Your task to perform on an android device: Open location settings Image 0: 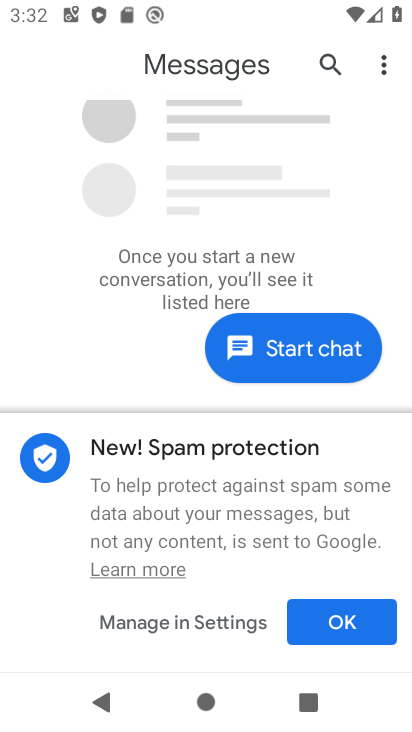
Step 0: press home button
Your task to perform on an android device: Open location settings Image 1: 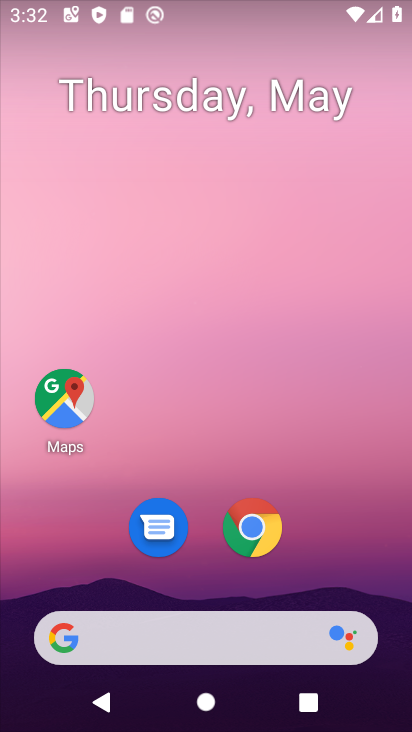
Step 1: drag from (381, 600) to (366, 176)
Your task to perform on an android device: Open location settings Image 2: 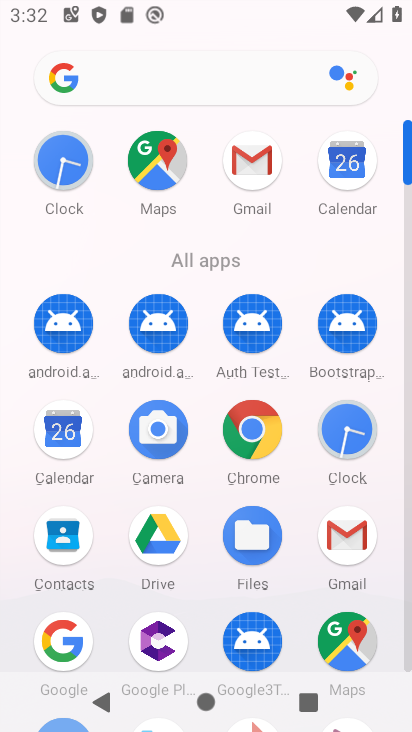
Step 2: click (406, 655)
Your task to perform on an android device: Open location settings Image 3: 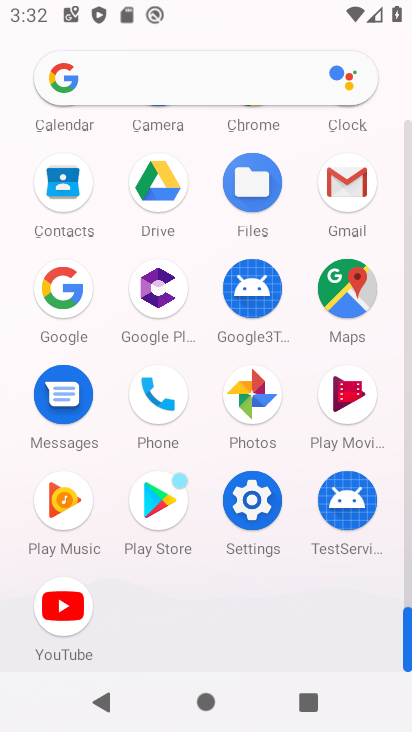
Step 3: click (255, 496)
Your task to perform on an android device: Open location settings Image 4: 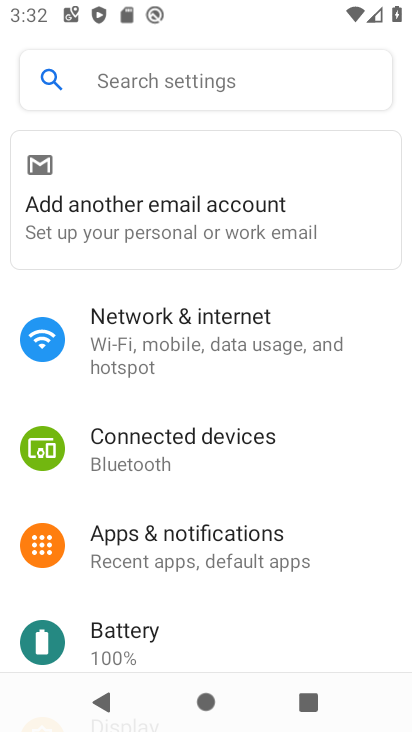
Step 4: drag from (356, 622) to (301, 119)
Your task to perform on an android device: Open location settings Image 5: 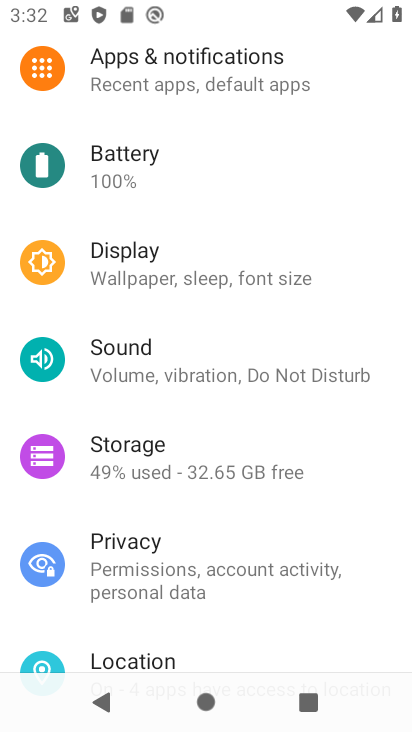
Step 5: drag from (356, 587) to (331, 282)
Your task to perform on an android device: Open location settings Image 6: 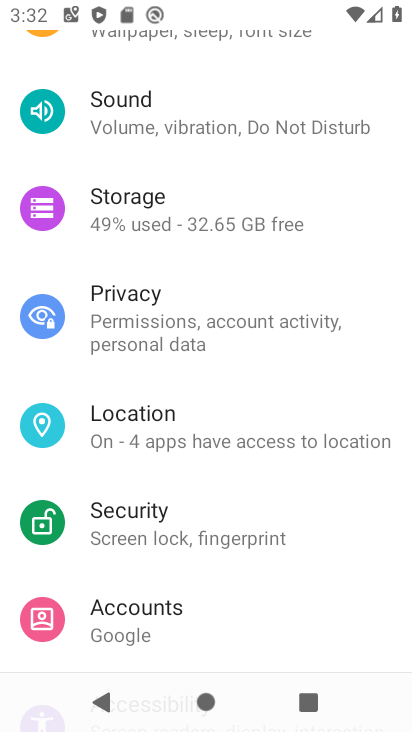
Step 6: click (119, 411)
Your task to perform on an android device: Open location settings Image 7: 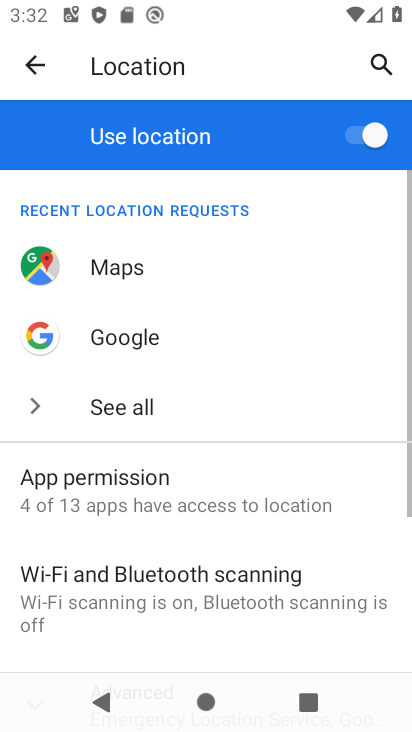
Step 7: drag from (260, 605) to (252, 161)
Your task to perform on an android device: Open location settings Image 8: 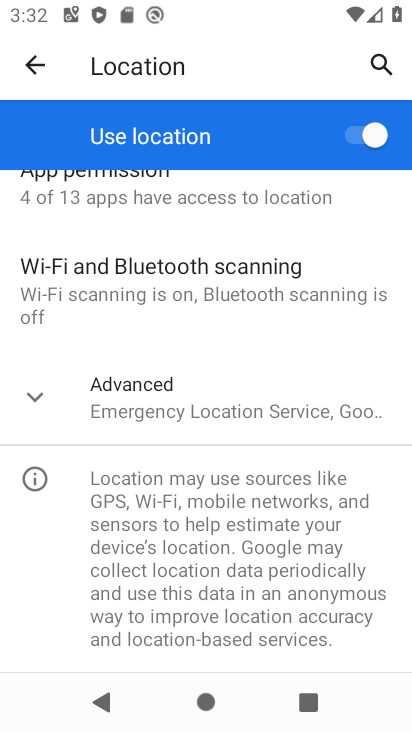
Step 8: click (40, 392)
Your task to perform on an android device: Open location settings Image 9: 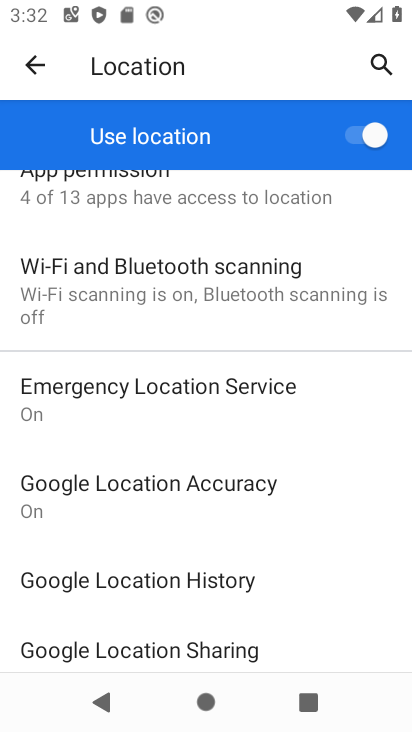
Step 9: task complete